Your task to perform on an android device: install app "NewsBreak: Local News & Alerts" Image 0: 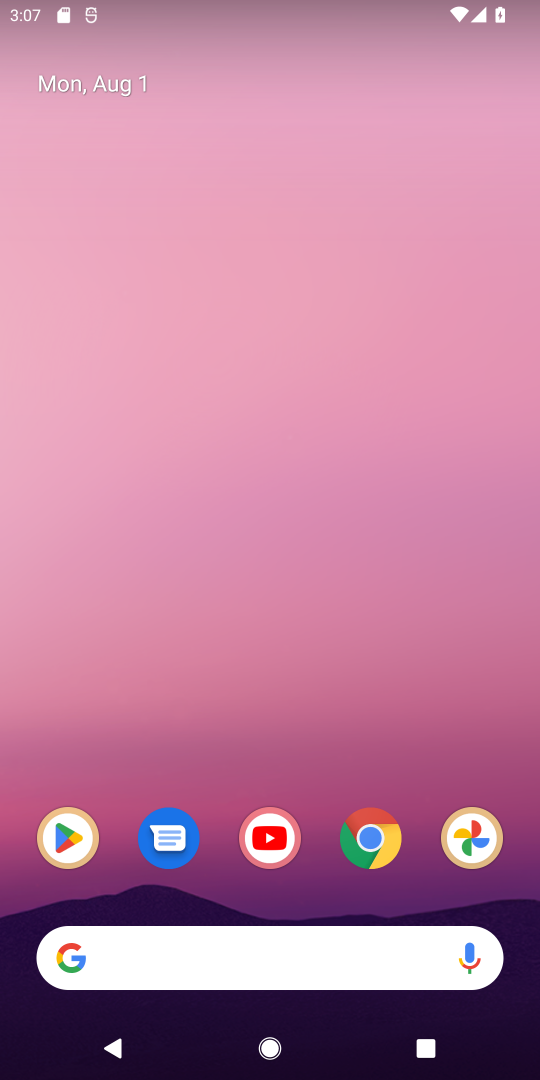
Step 0: click (38, 842)
Your task to perform on an android device: install app "NewsBreak: Local News & Alerts" Image 1: 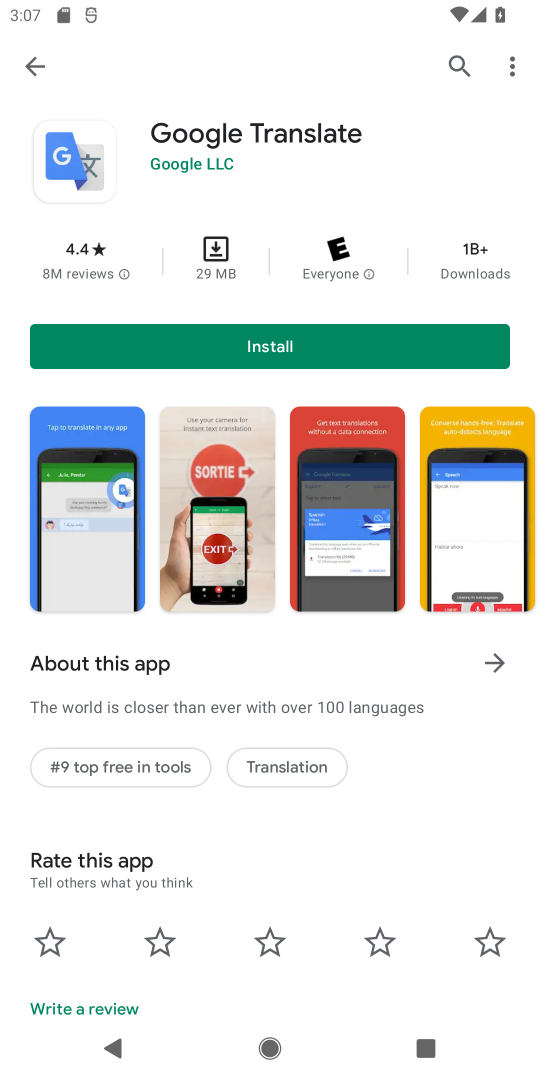
Step 1: click (446, 56)
Your task to perform on an android device: install app "NewsBreak: Local News & Alerts" Image 2: 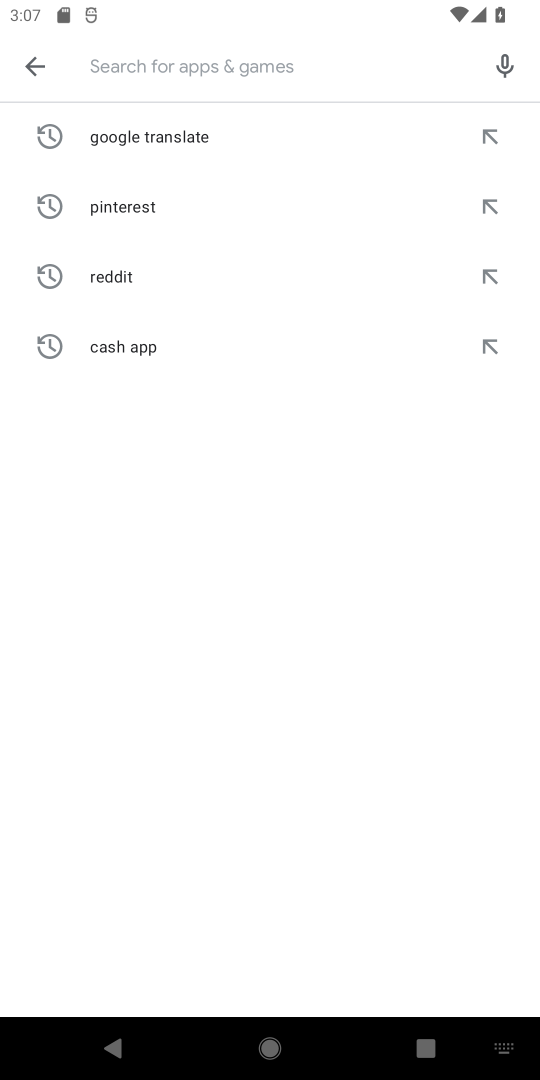
Step 2: click (302, 57)
Your task to perform on an android device: install app "NewsBreak: Local News & Alerts" Image 3: 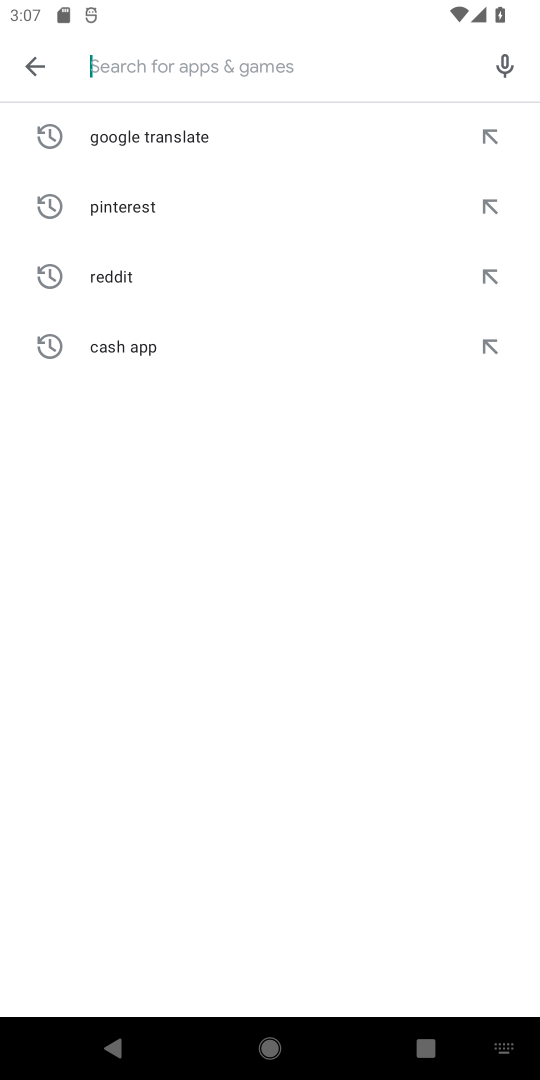
Step 3: type "NewsBreak: Local News & Alerts"
Your task to perform on an android device: install app "NewsBreak: Local News & Alerts" Image 4: 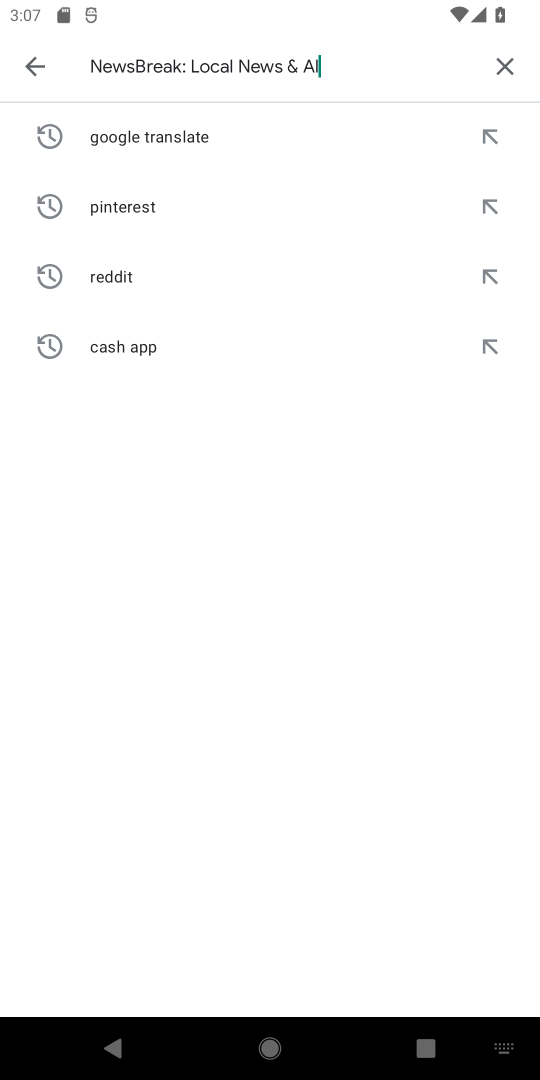
Step 4: type ""
Your task to perform on an android device: install app "NewsBreak: Local News & Alerts" Image 5: 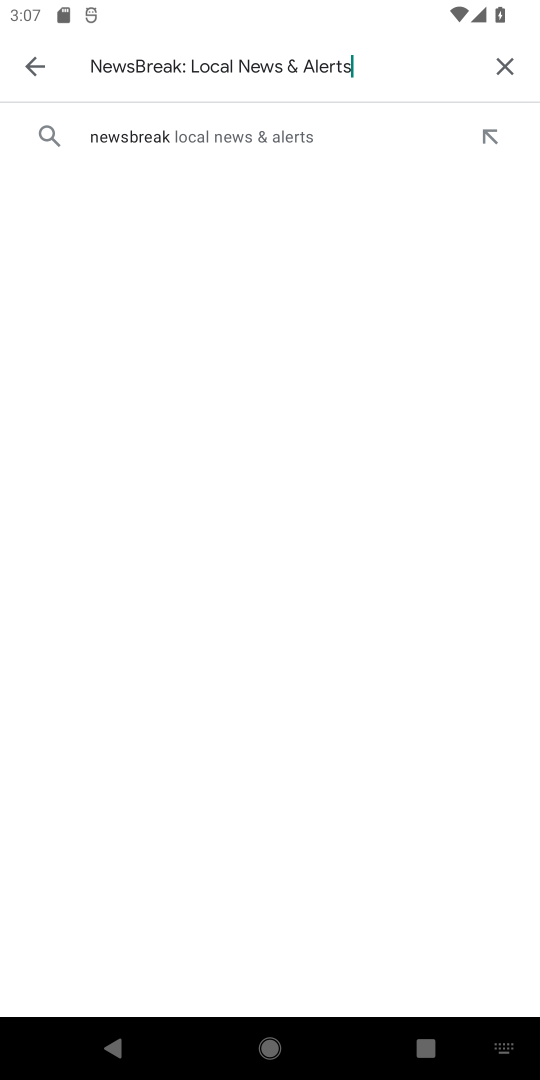
Step 5: click (194, 138)
Your task to perform on an android device: install app "NewsBreak: Local News & Alerts" Image 6: 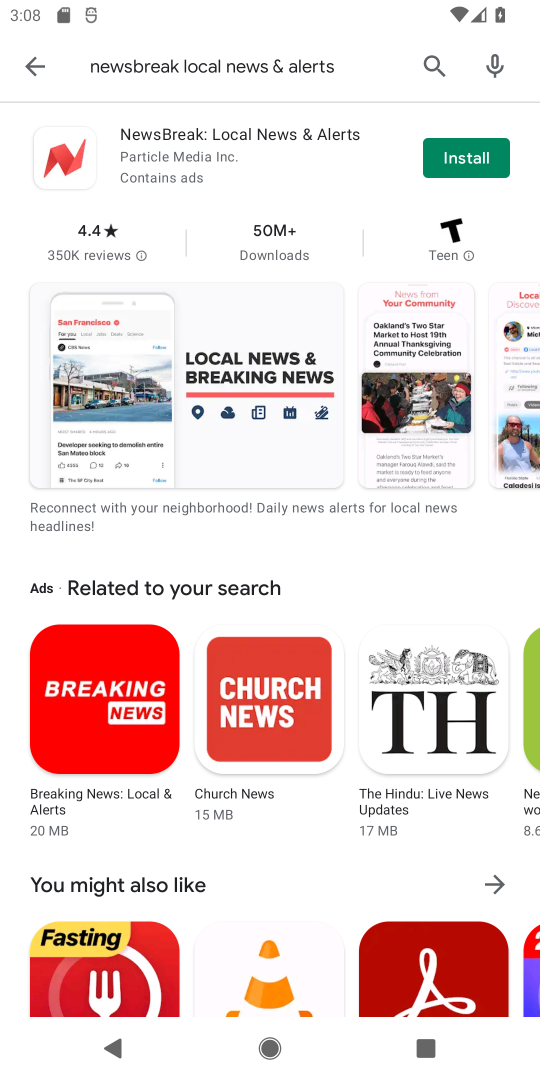
Step 6: click (454, 150)
Your task to perform on an android device: install app "NewsBreak: Local News & Alerts" Image 7: 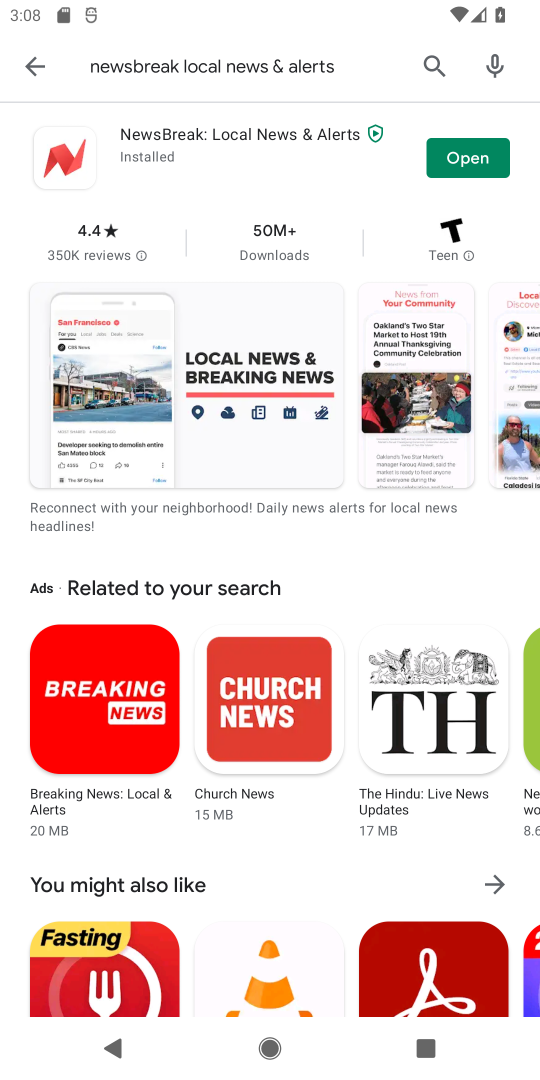
Step 7: task complete